Your task to perform on an android device: see tabs open on other devices in the chrome app Image 0: 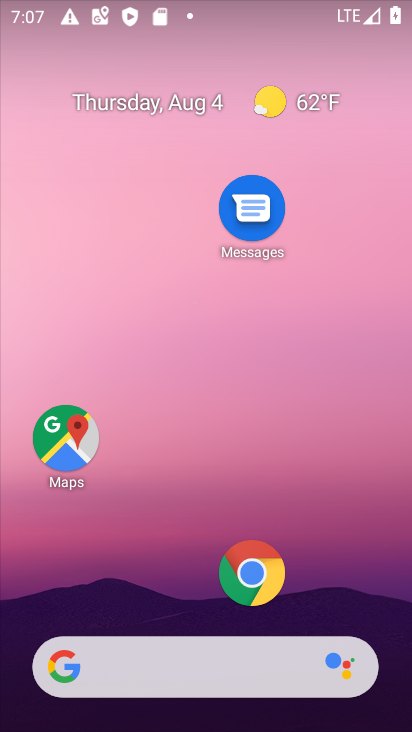
Step 0: press home button
Your task to perform on an android device: see tabs open on other devices in the chrome app Image 1: 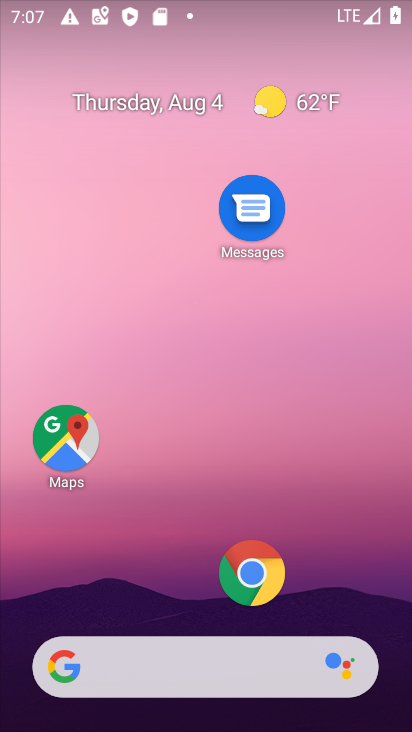
Step 1: drag from (177, 622) to (178, 167)
Your task to perform on an android device: see tabs open on other devices in the chrome app Image 2: 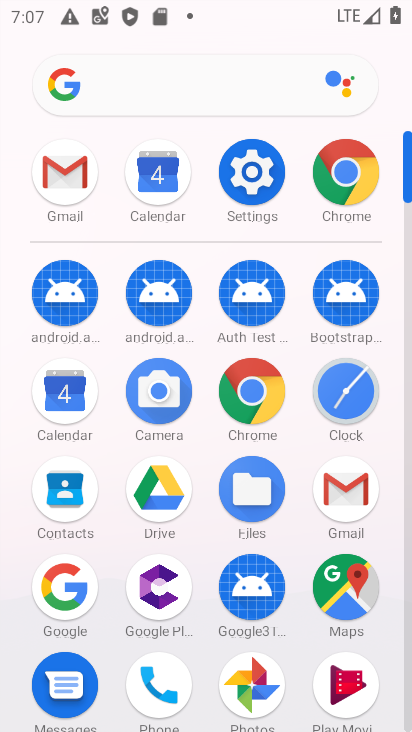
Step 2: click (347, 171)
Your task to perform on an android device: see tabs open on other devices in the chrome app Image 3: 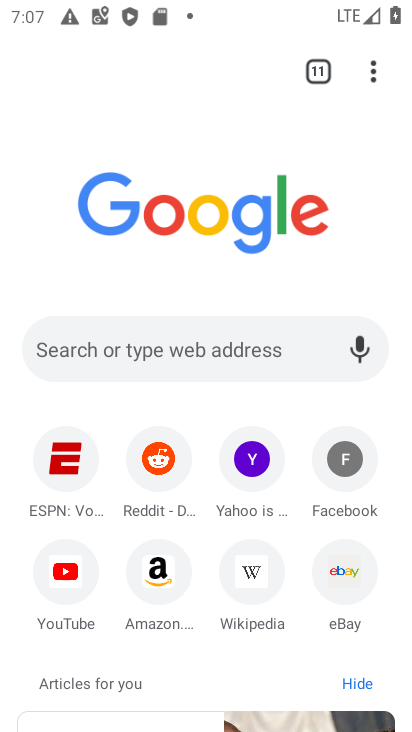
Step 3: task complete